Your task to perform on an android device: Go to battery settings Image 0: 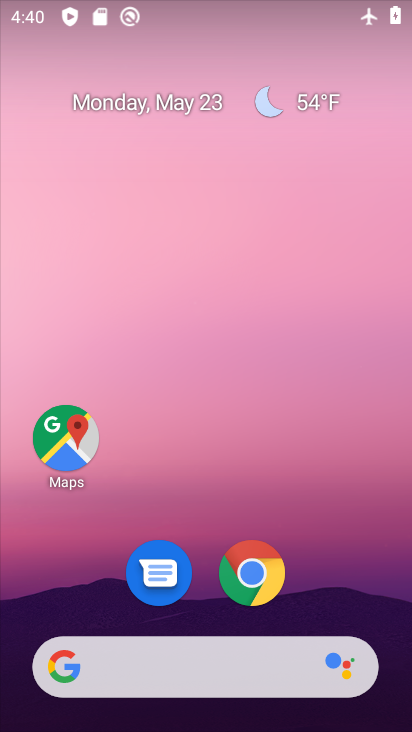
Step 0: drag from (186, 677) to (209, 265)
Your task to perform on an android device: Go to battery settings Image 1: 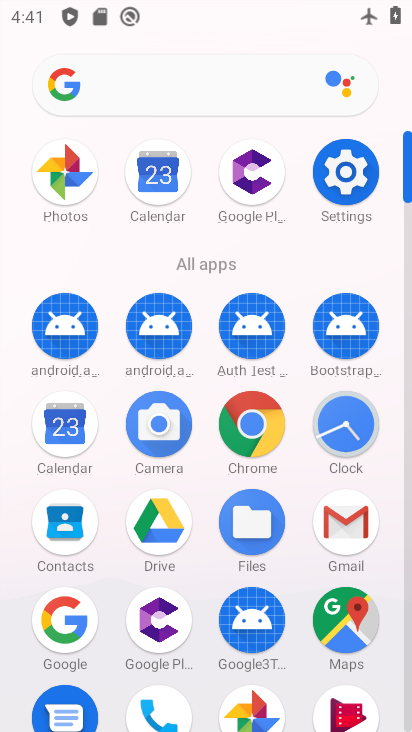
Step 1: click (352, 186)
Your task to perform on an android device: Go to battery settings Image 2: 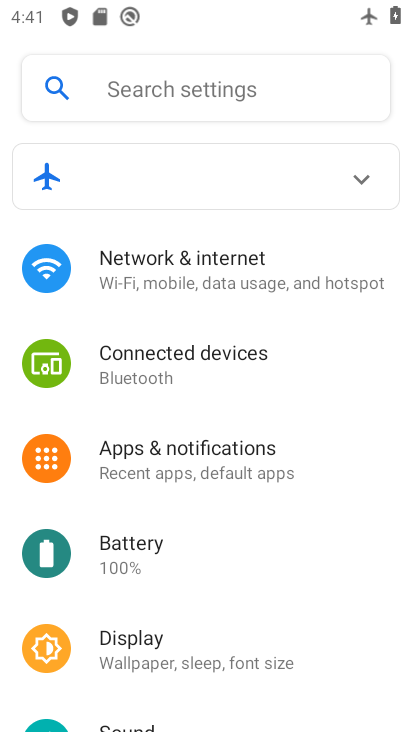
Step 2: click (124, 537)
Your task to perform on an android device: Go to battery settings Image 3: 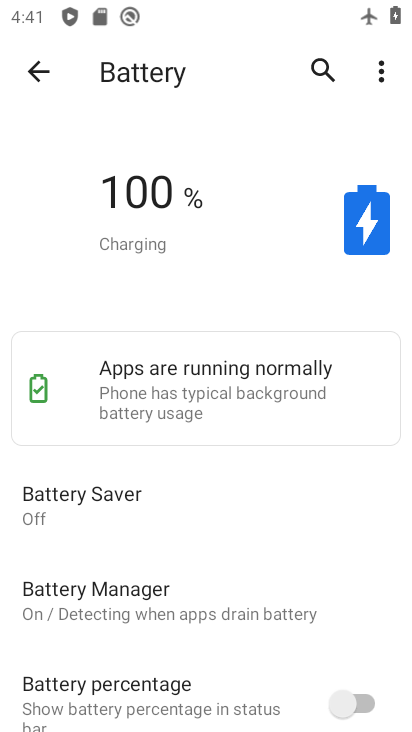
Step 3: task complete